Your task to perform on an android device: change the upload size in google photos Image 0: 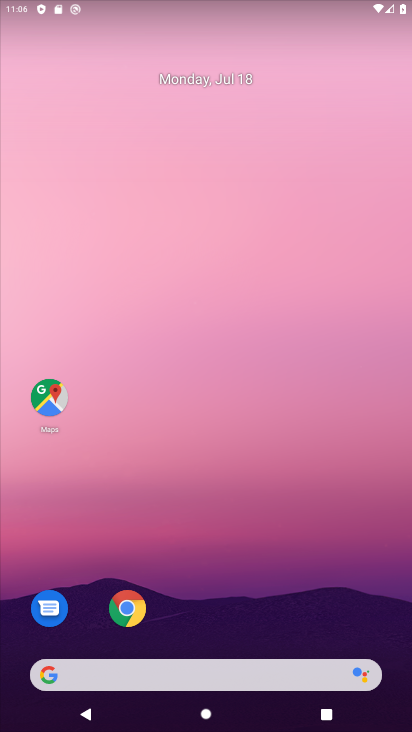
Step 0: drag from (270, 597) to (259, 82)
Your task to perform on an android device: change the upload size in google photos Image 1: 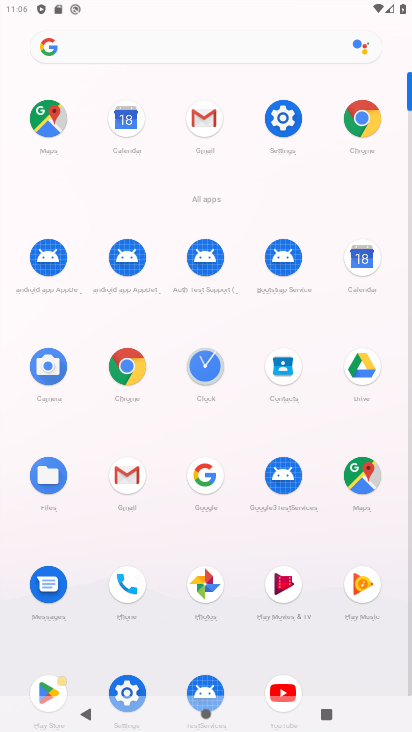
Step 1: click (202, 592)
Your task to perform on an android device: change the upload size in google photos Image 2: 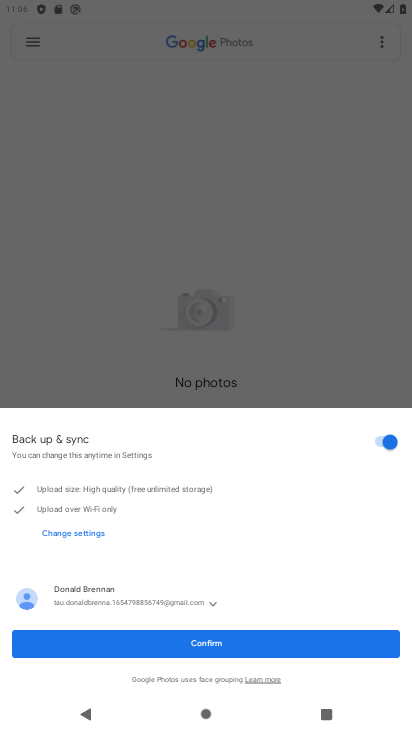
Step 2: click (211, 649)
Your task to perform on an android device: change the upload size in google photos Image 3: 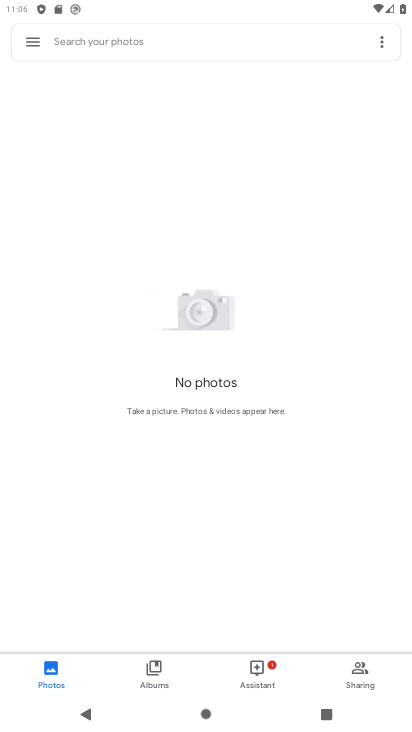
Step 3: click (31, 48)
Your task to perform on an android device: change the upload size in google photos Image 4: 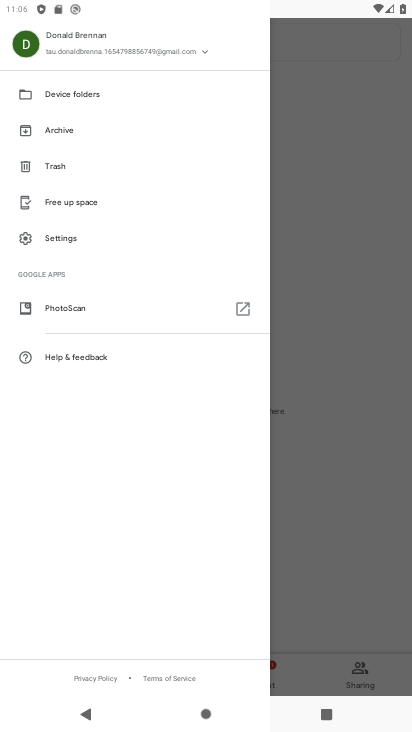
Step 4: click (69, 238)
Your task to perform on an android device: change the upload size in google photos Image 5: 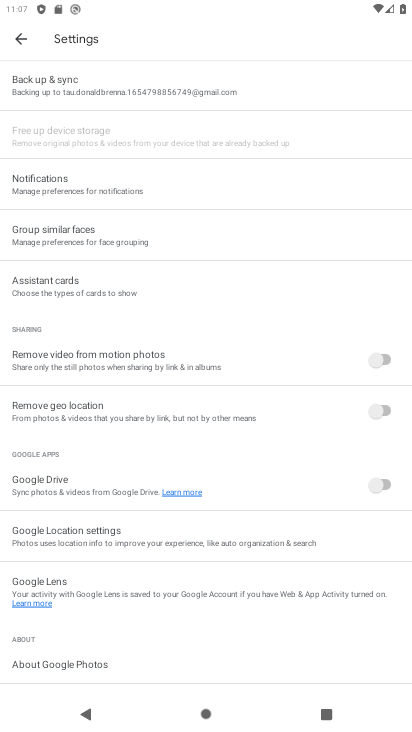
Step 5: click (151, 99)
Your task to perform on an android device: change the upload size in google photos Image 6: 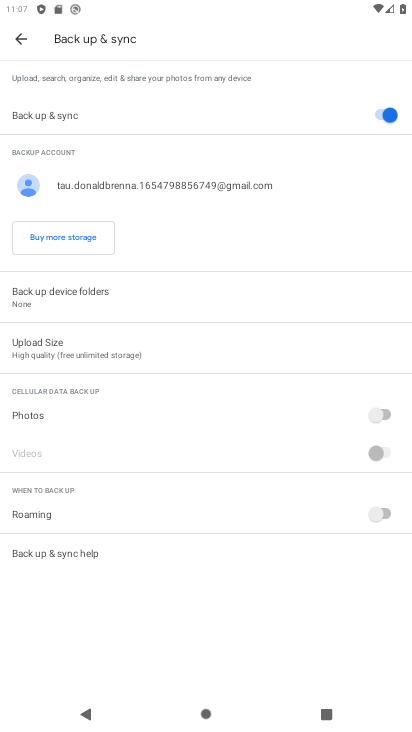
Step 6: click (113, 338)
Your task to perform on an android device: change the upload size in google photos Image 7: 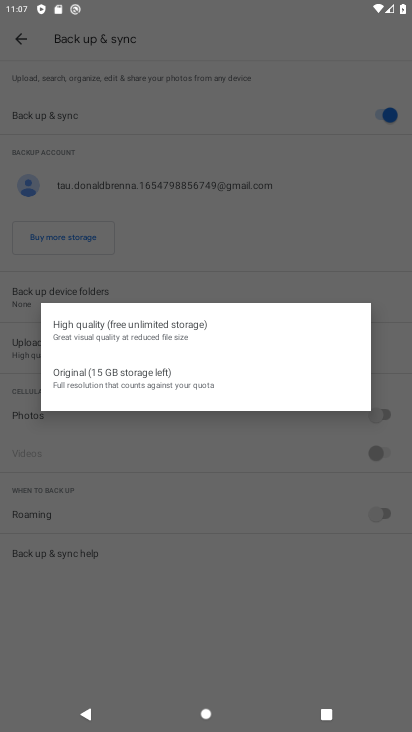
Step 7: click (130, 379)
Your task to perform on an android device: change the upload size in google photos Image 8: 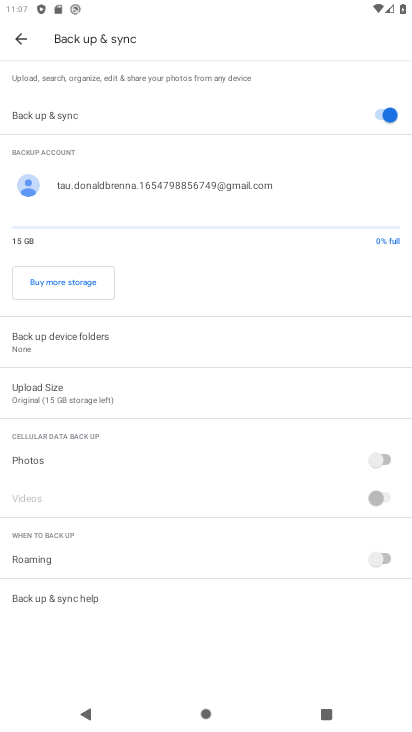
Step 8: task complete